Your task to perform on an android device: Search for sushi restaurants on Maps Image 0: 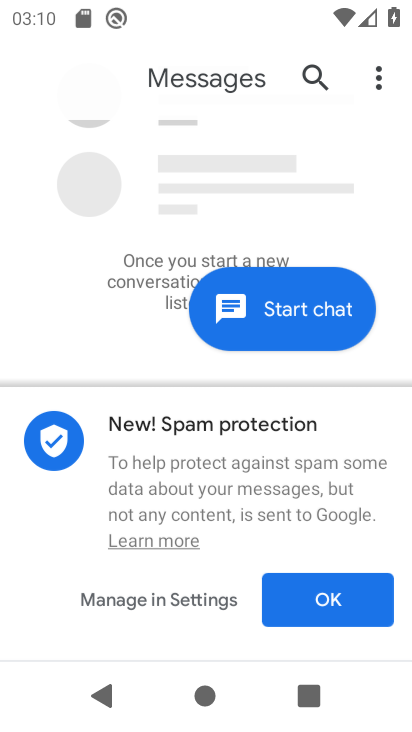
Step 0: press home button
Your task to perform on an android device: Search for sushi restaurants on Maps Image 1: 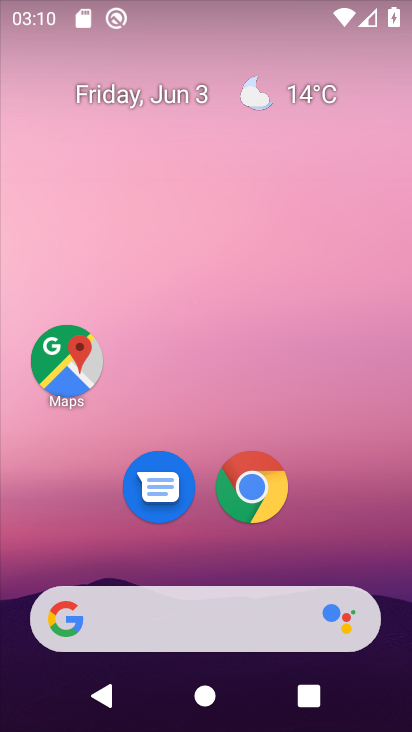
Step 1: click (90, 362)
Your task to perform on an android device: Search for sushi restaurants on Maps Image 2: 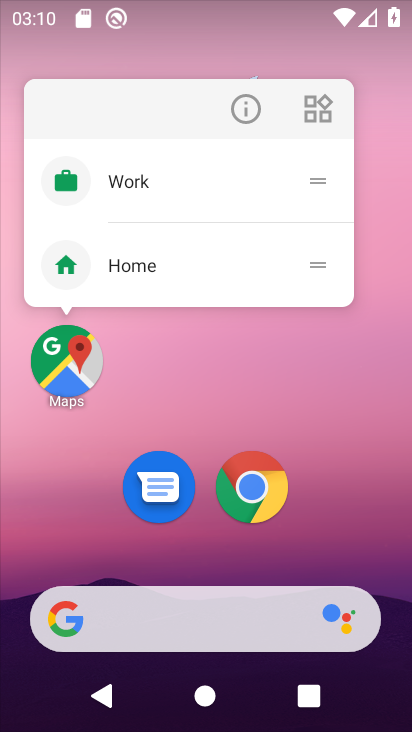
Step 2: click (55, 354)
Your task to perform on an android device: Search for sushi restaurants on Maps Image 3: 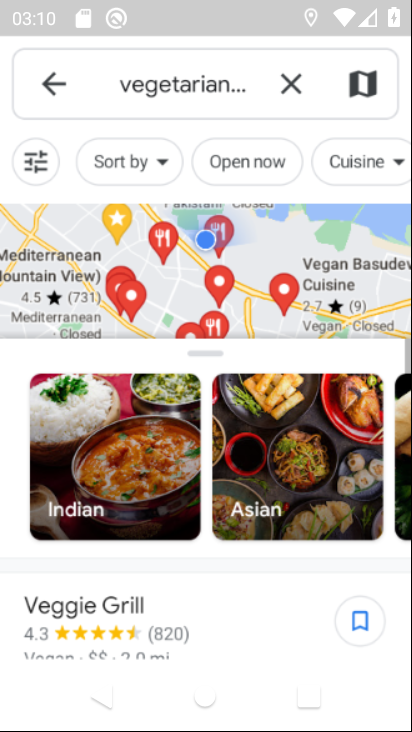
Step 3: click (286, 83)
Your task to perform on an android device: Search for sushi restaurants on Maps Image 4: 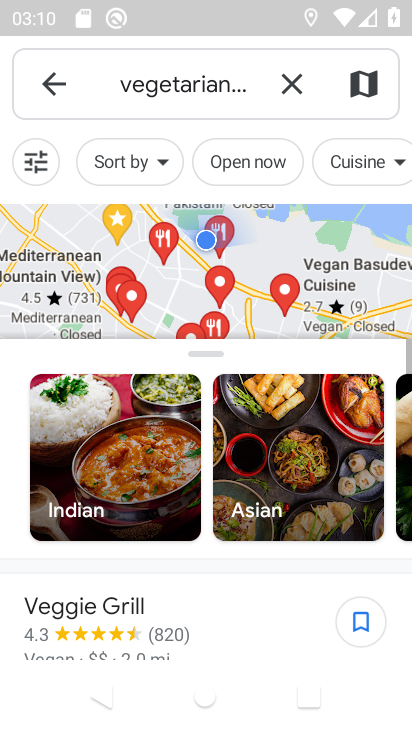
Step 4: click (288, 81)
Your task to perform on an android device: Search for sushi restaurants on Maps Image 5: 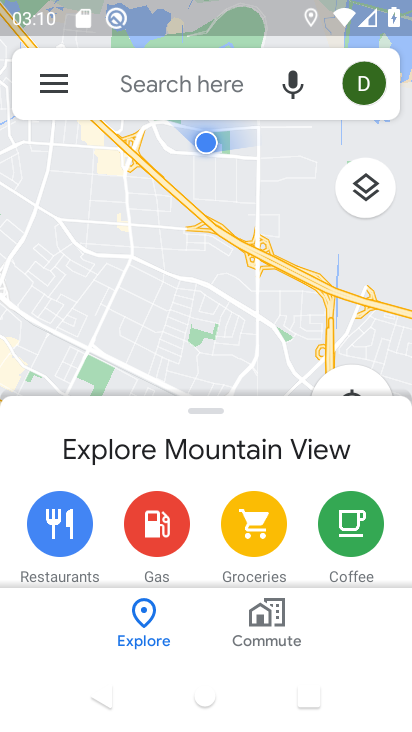
Step 5: click (181, 83)
Your task to perform on an android device: Search for sushi restaurants on Maps Image 6: 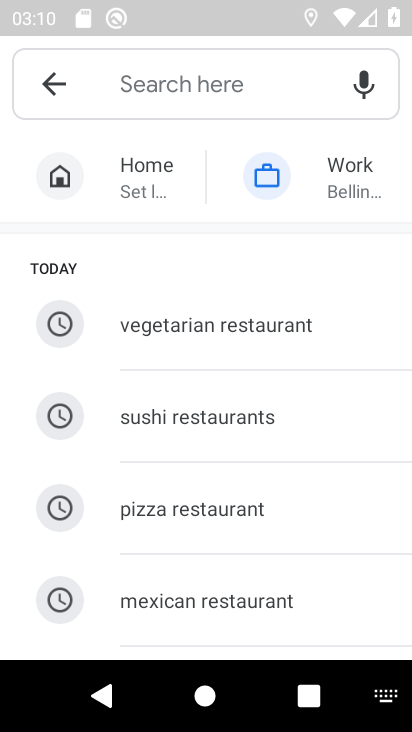
Step 6: click (286, 409)
Your task to perform on an android device: Search for sushi restaurants on Maps Image 7: 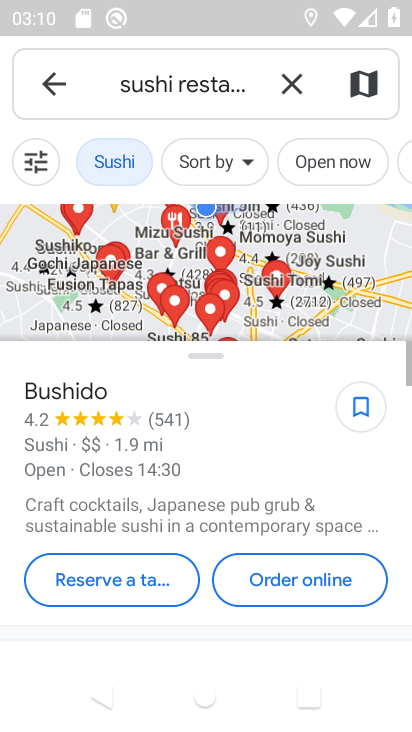
Step 7: task complete